Your task to perform on an android device: Add logitech g pro to the cart on target Image 0: 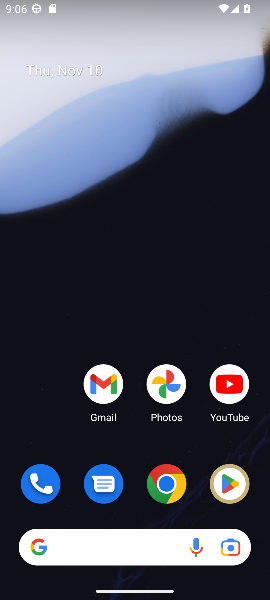
Step 0: click (165, 488)
Your task to perform on an android device: Add logitech g pro to the cart on target Image 1: 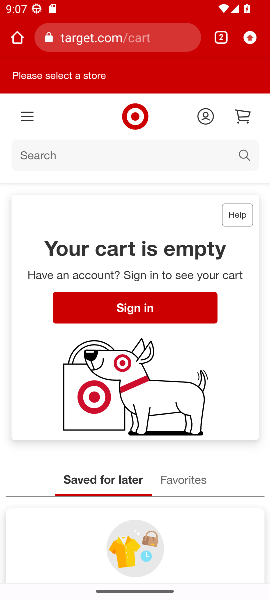
Step 1: click (243, 155)
Your task to perform on an android device: Add logitech g pro to the cart on target Image 2: 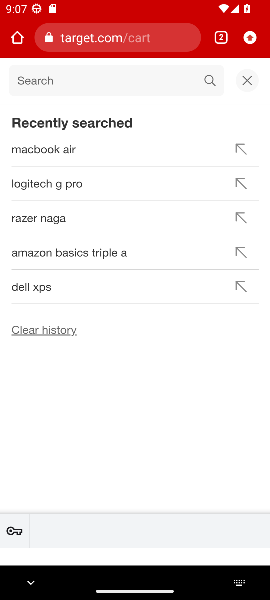
Step 2: type "logitech g pro"
Your task to perform on an android device: Add logitech g pro to the cart on target Image 3: 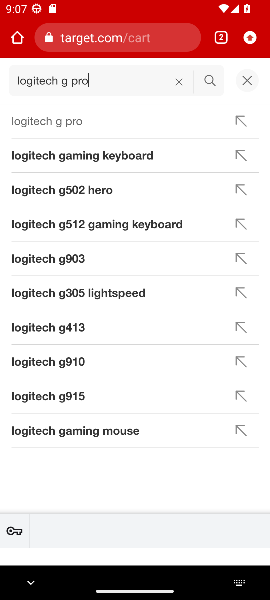
Step 3: click (44, 118)
Your task to perform on an android device: Add logitech g pro to the cart on target Image 4: 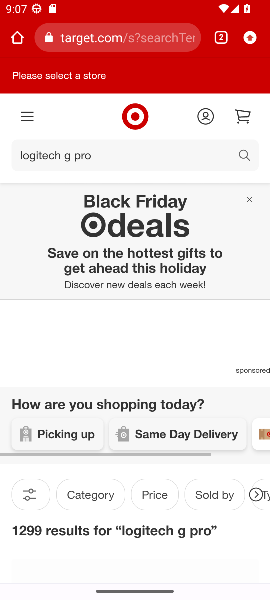
Step 4: task complete